Your task to perform on an android device: uninstall "DoorDash - Dasher" Image 0: 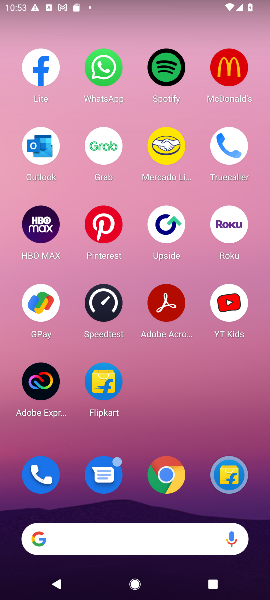
Step 0: drag from (208, 404) to (198, 33)
Your task to perform on an android device: uninstall "DoorDash - Dasher" Image 1: 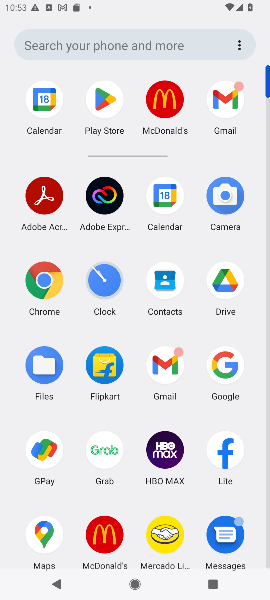
Step 1: click (110, 100)
Your task to perform on an android device: uninstall "DoorDash - Dasher" Image 2: 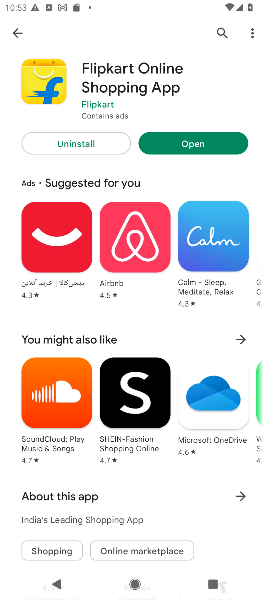
Step 2: click (16, 40)
Your task to perform on an android device: uninstall "DoorDash - Dasher" Image 3: 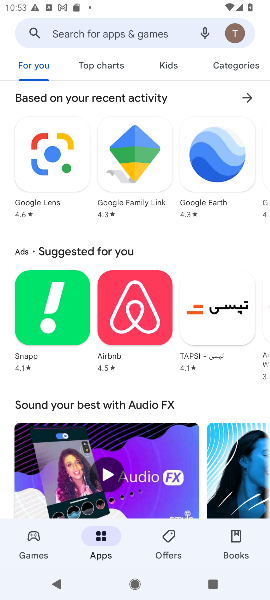
Step 3: click (60, 32)
Your task to perform on an android device: uninstall "DoorDash - Dasher" Image 4: 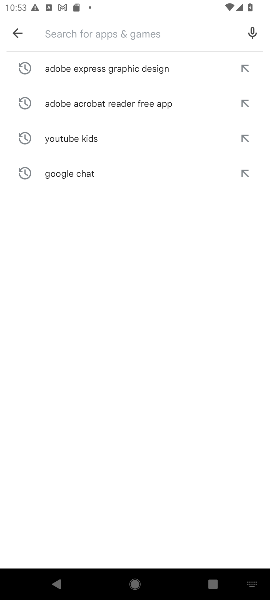
Step 4: type "DoorDash - Dasher"
Your task to perform on an android device: uninstall "DoorDash - Dasher" Image 5: 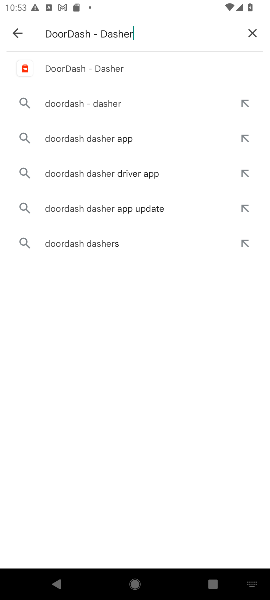
Step 5: click (113, 65)
Your task to perform on an android device: uninstall "DoorDash - Dasher" Image 6: 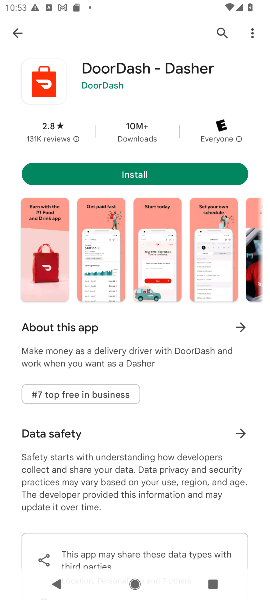
Step 6: task complete